Your task to perform on an android device: turn on the 12-hour format for clock Image 0: 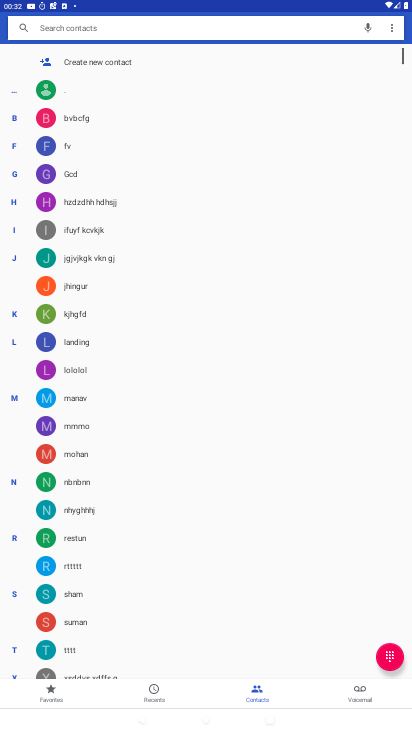
Step 0: press home button
Your task to perform on an android device: turn on the 12-hour format for clock Image 1: 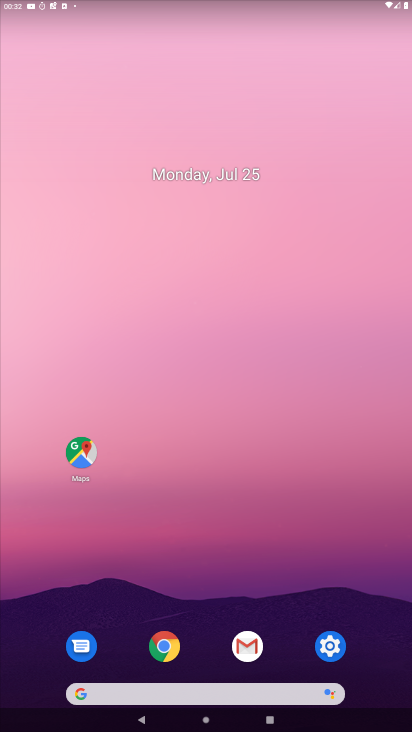
Step 1: drag from (295, 712) to (347, 204)
Your task to perform on an android device: turn on the 12-hour format for clock Image 2: 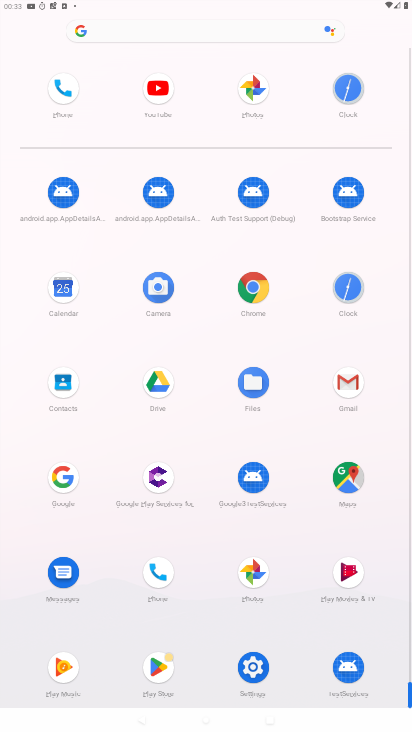
Step 2: click (366, 290)
Your task to perform on an android device: turn on the 12-hour format for clock Image 3: 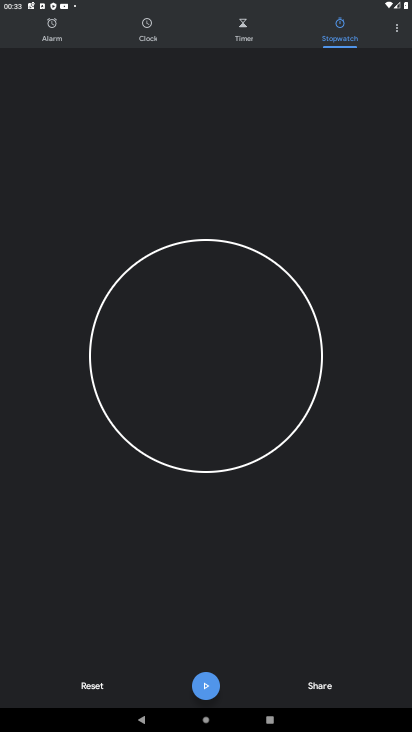
Step 3: click (396, 35)
Your task to perform on an android device: turn on the 12-hour format for clock Image 4: 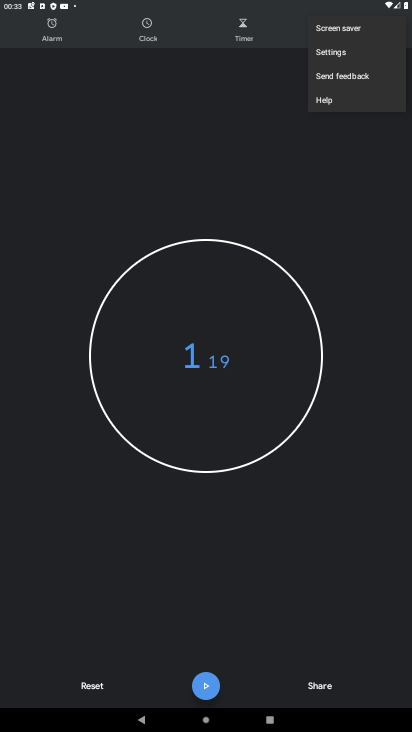
Step 4: click (344, 55)
Your task to perform on an android device: turn on the 12-hour format for clock Image 5: 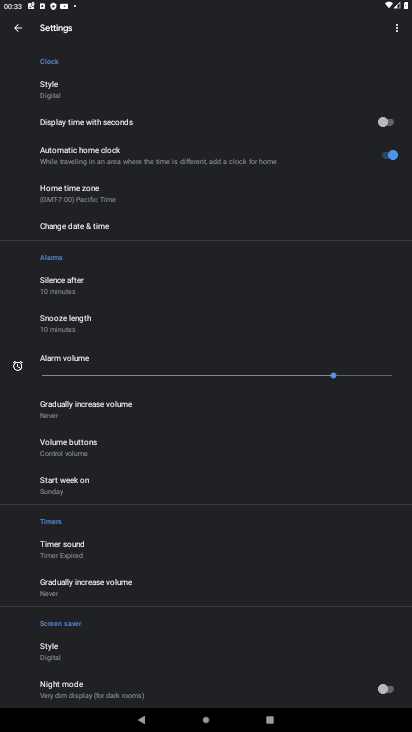
Step 5: click (60, 224)
Your task to perform on an android device: turn on the 12-hour format for clock Image 6: 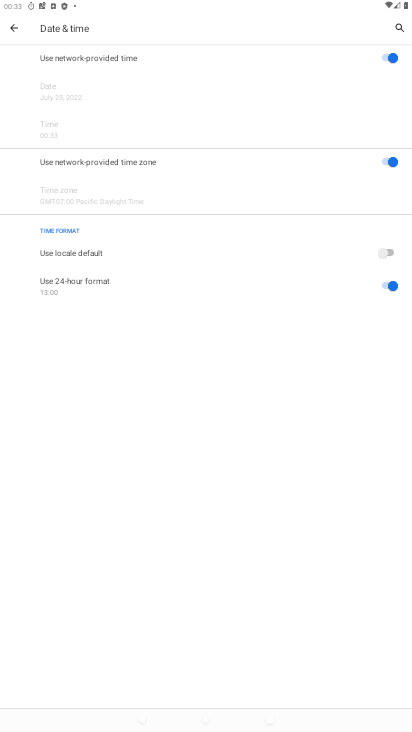
Step 6: click (377, 253)
Your task to perform on an android device: turn on the 12-hour format for clock Image 7: 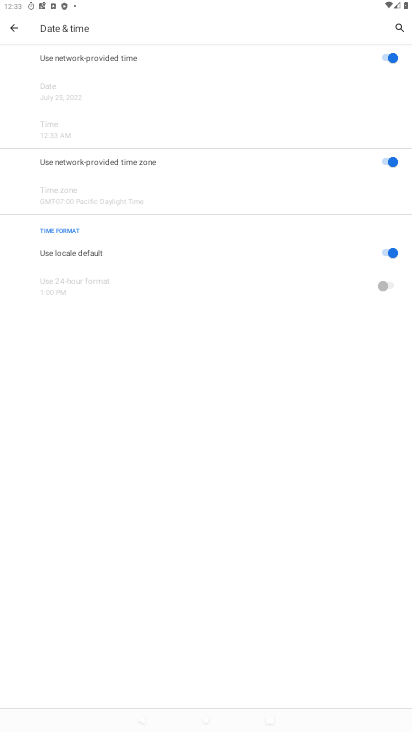
Step 7: task complete